Your task to perform on an android device: change the clock style Image 0: 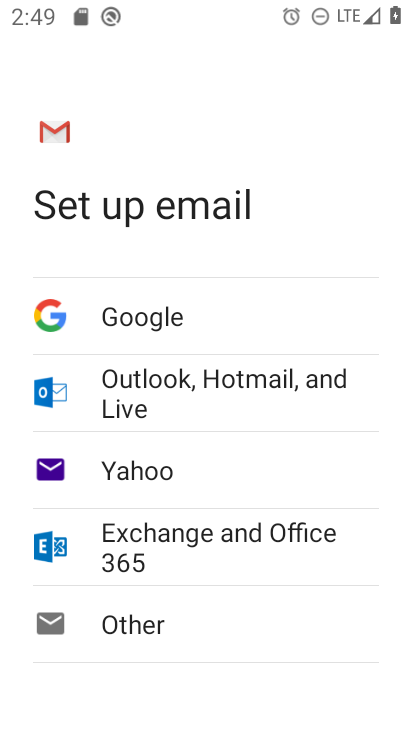
Step 0: press home button
Your task to perform on an android device: change the clock style Image 1: 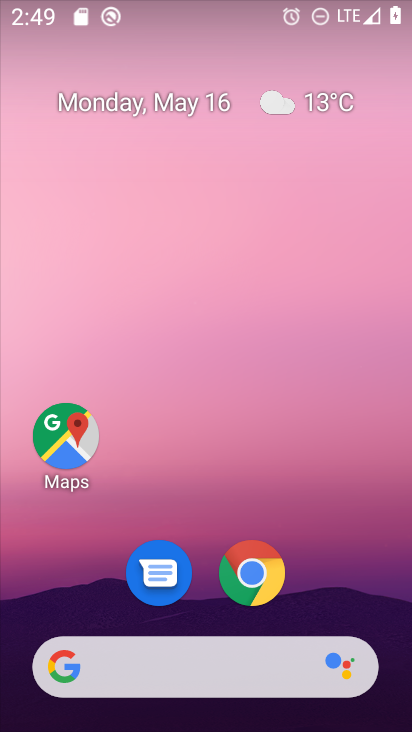
Step 1: drag from (180, 643) to (148, 124)
Your task to perform on an android device: change the clock style Image 2: 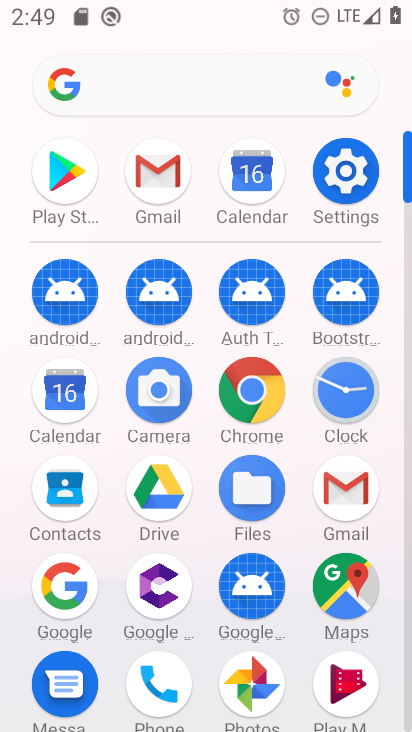
Step 2: click (353, 400)
Your task to perform on an android device: change the clock style Image 3: 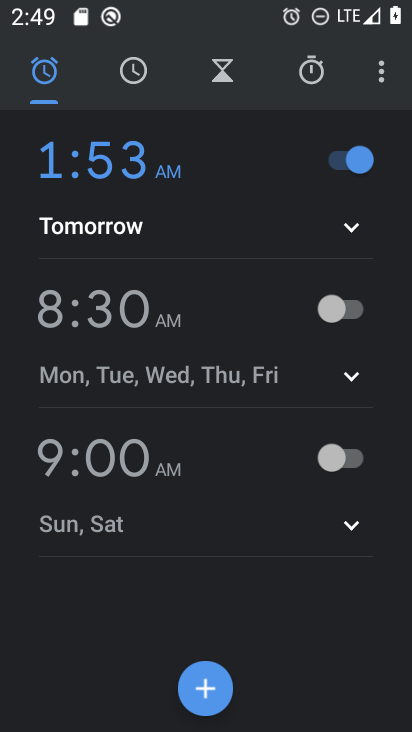
Step 3: click (378, 66)
Your task to perform on an android device: change the clock style Image 4: 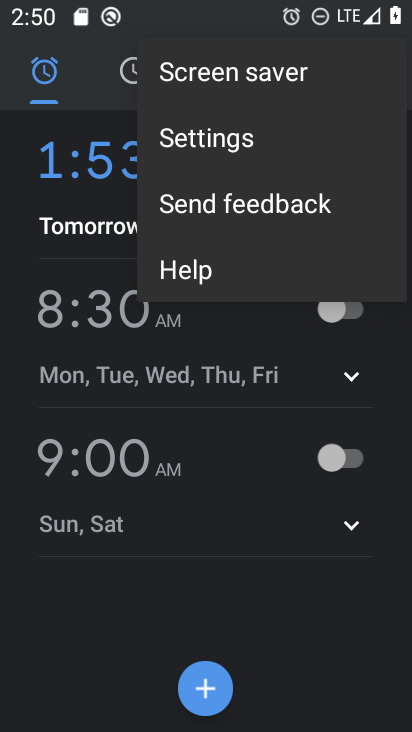
Step 4: click (189, 157)
Your task to perform on an android device: change the clock style Image 5: 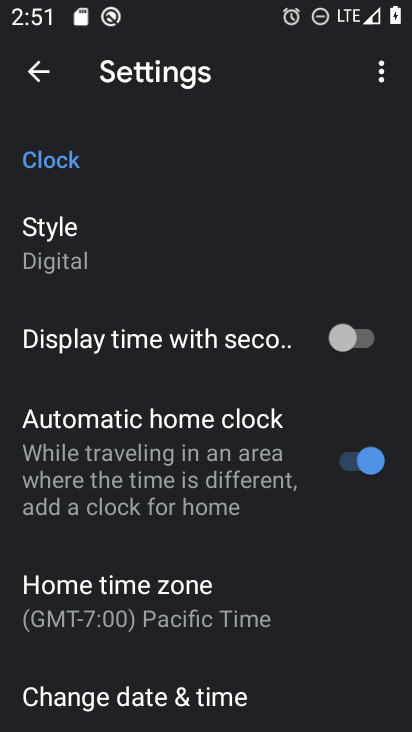
Step 5: click (145, 257)
Your task to perform on an android device: change the clock style Image 6: 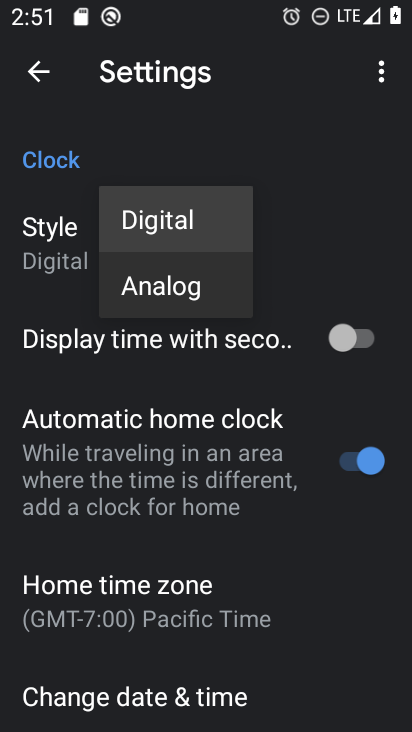
Step 6: click (137, 284)
Your task to perform on an android device: change the clock style Image 7: 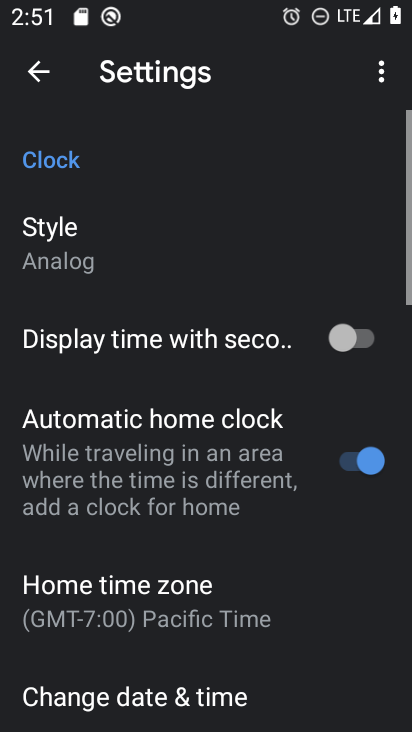
Step 7: task complete